Your task to perform on an android device: Open settings Image 0: 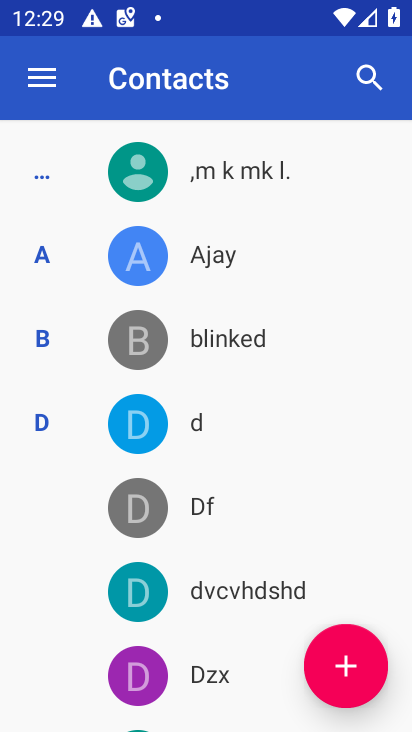
Step 0: press home button
Your task to perform on an android device: Open settings Image 1: 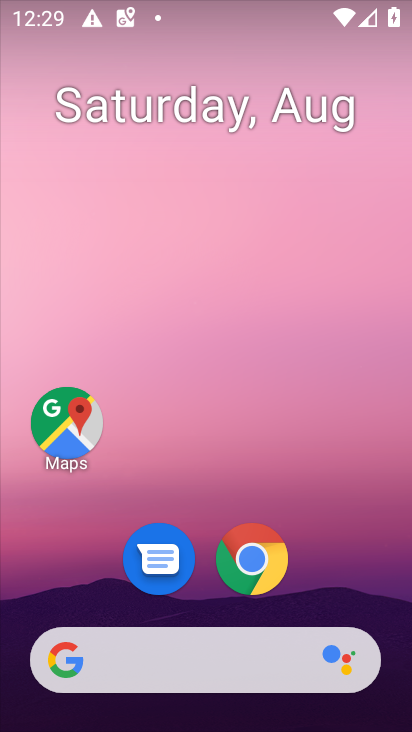
Step 1: drag from (392, 590) to (357, 293)
Your task to perform on an android device: Open settings Image 2: 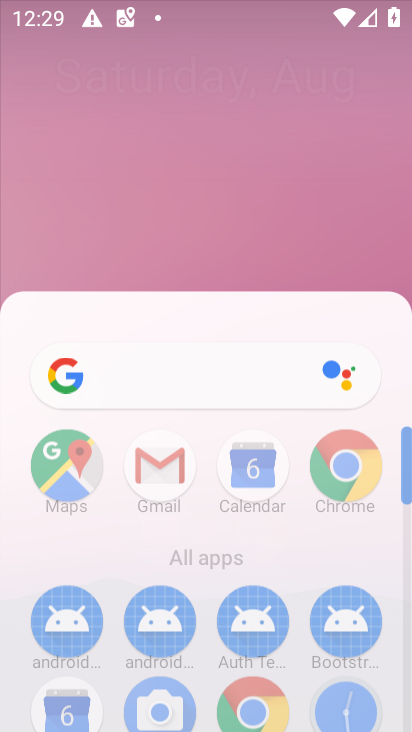
Step 2: click (343, 257)
Your task to perform on an android device: Open settings Image 3: 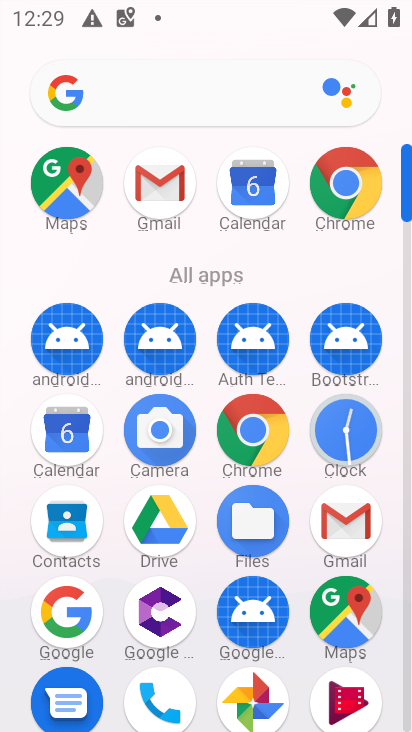
Step 3: click (404, 704)
Your task to perform on an android device: Open settings Image 4: 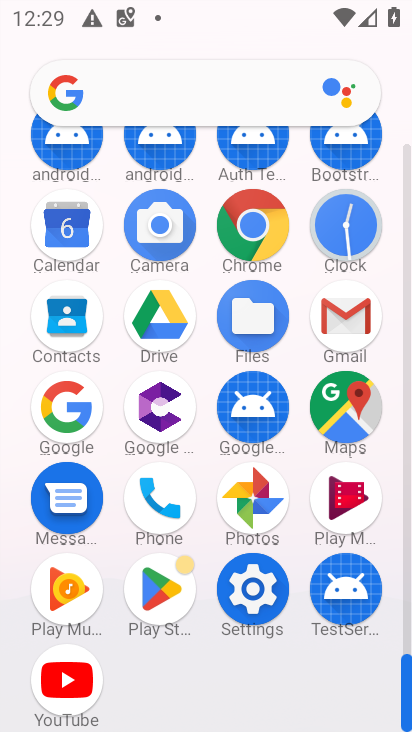
Step 4: click (254, 599)
Your task to perform on an android device: Open settings Image 5: 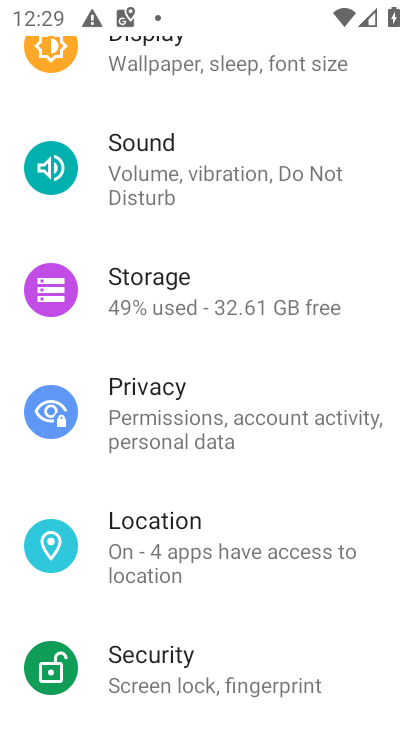
Step 5: task complete